Your task to perform on an android device: What's the weather? Image 0: 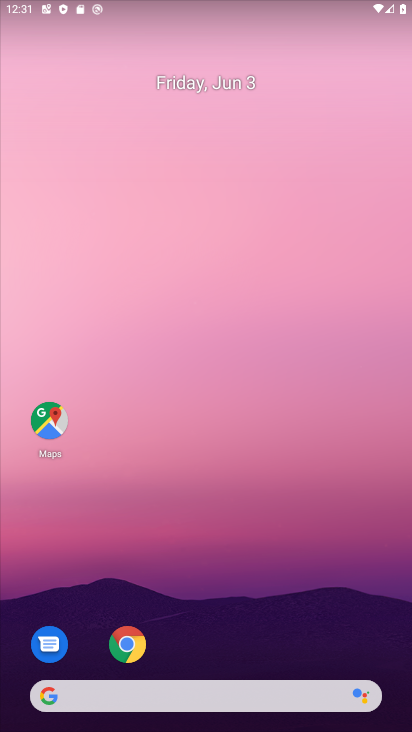
Step 0: drag from (224, 268) to (224, 17)
Your task to perform on an android device: What's the weather? Image 1: 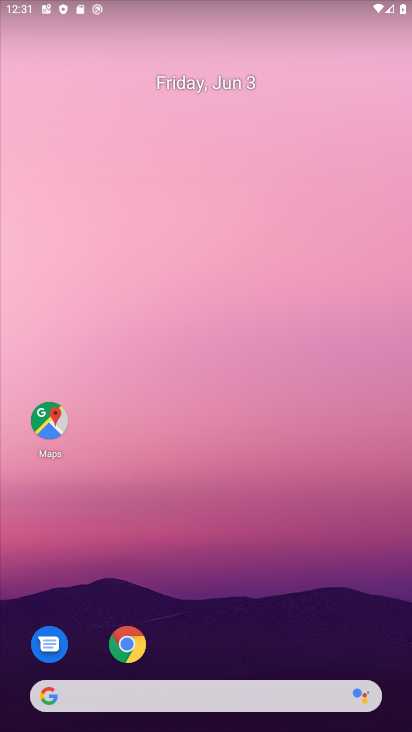
Step 1: drag from (208, 722) to (209, 64)
Your task to perform on an android device: What's the weather? Image 2: 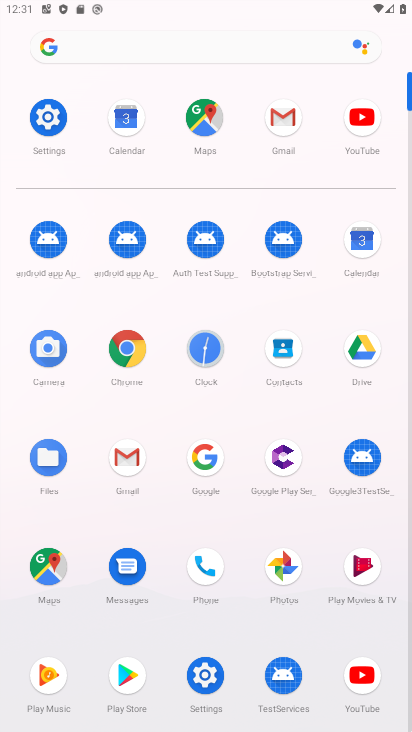
Step 2: click (205, 461)
Your task to perform on an android device: What's the weather? Image 3: 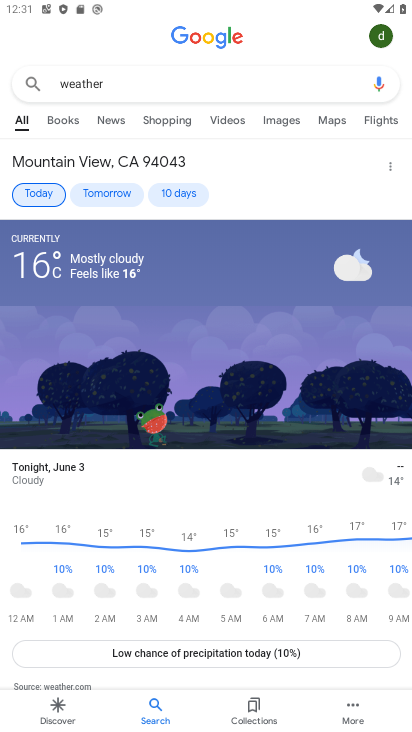
Step 3: click (35, 194)
Your task to perform on an android device: What's the weather? Image 4: 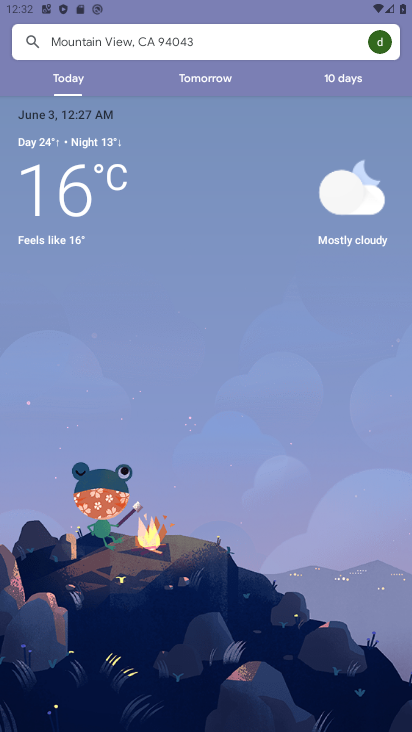
Step 4: task complete